Your task to perform on an android device: What's the weather today? Image 0: 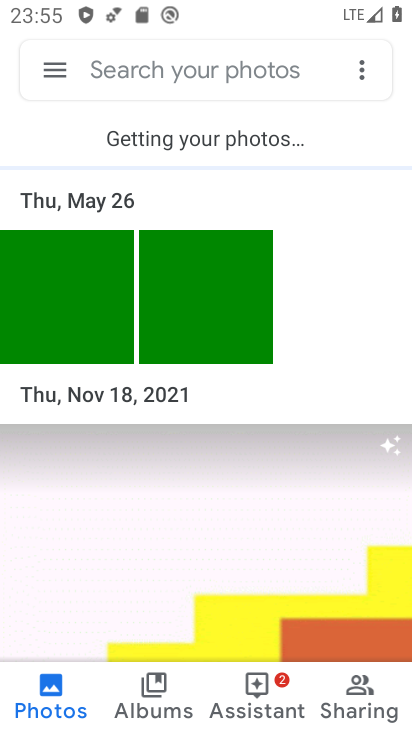
Step 0: press home button
Your task to perform on an android device: What's the weather today? Image 1: 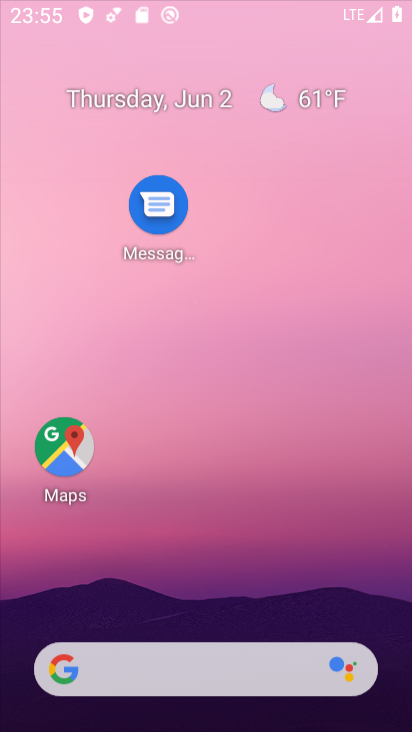
Step 1: click (200, 651)
Your task to perform on an android device: What's the weather today? Image 2: 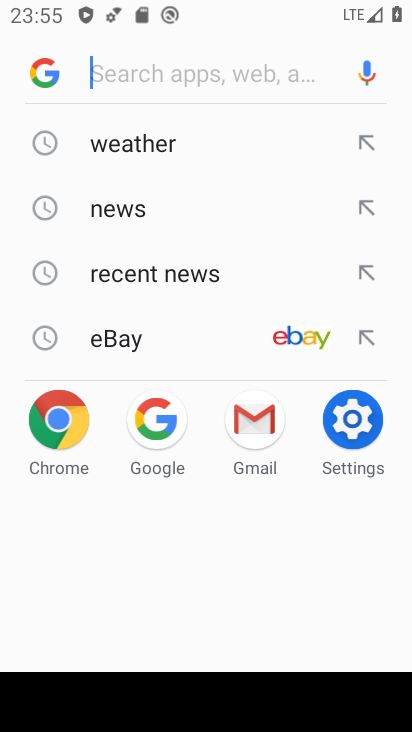
Step 2: click (166, 151)
Your task to perform on an android device: What's the weather today? Image 3: 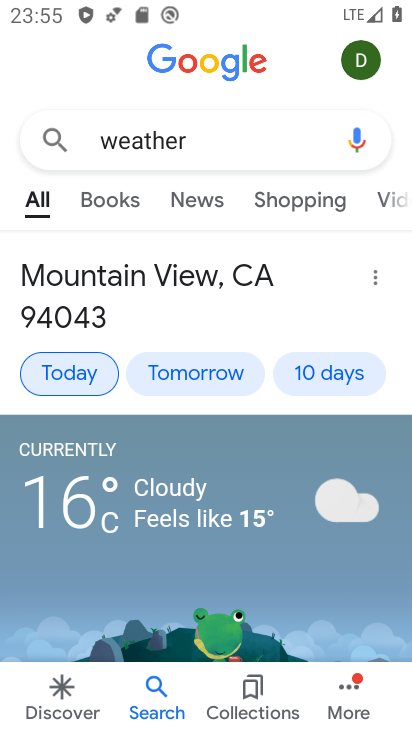
Step 3: task complete